Your task to perform on an android device: Show me recent news Image 0: 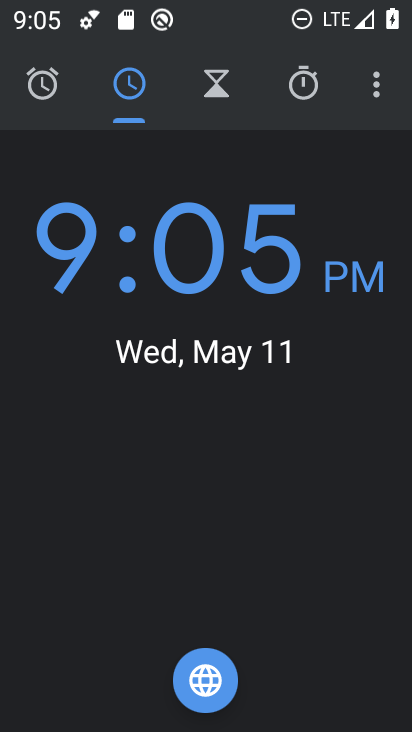
Step 0: press home button
Your task to perform on an android device: Show me recent news Image 1: 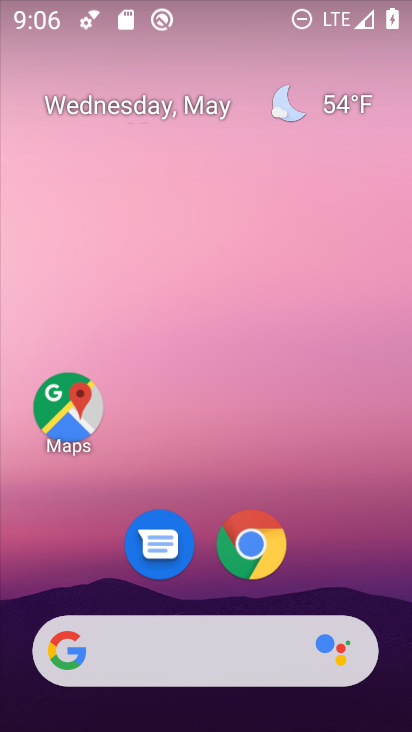
Step 1: click (220, 654)
Your task to perform on an android device: Show me recent news Image 2: 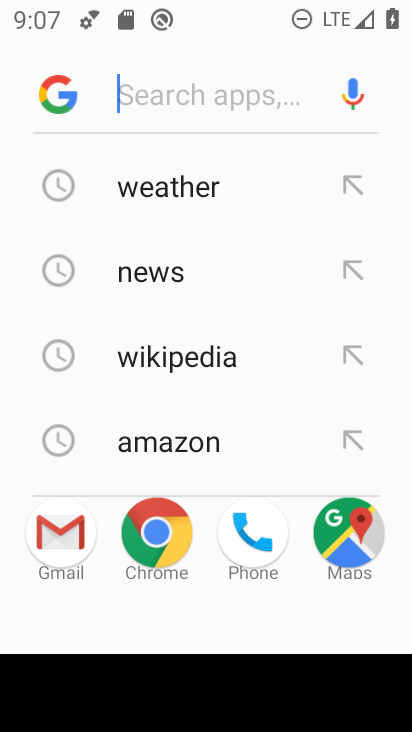
Step 2: click (59, 76)
Your task to perform on an android device: Show me recent news Image 3: 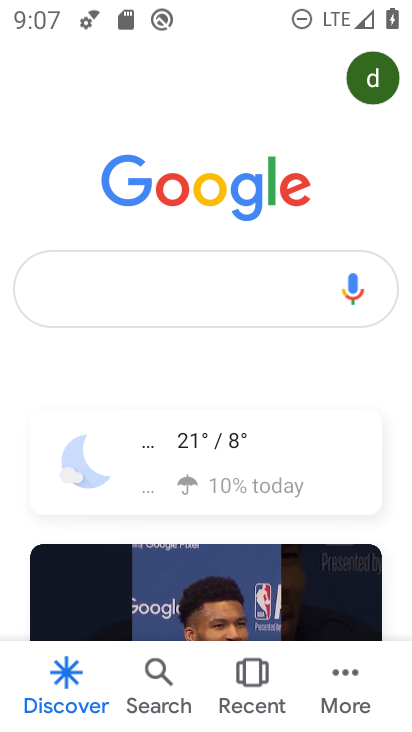
Step 3: task complete